Your task to perform on an android device: change keyboard looks Image 0: 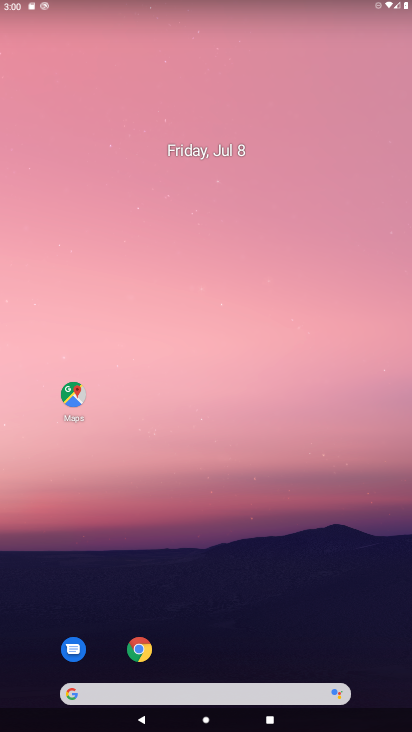
Step 0: drag from (373, 646) to (313, 115)
Your task to perform on an android device: change keyboard looks Image 1: 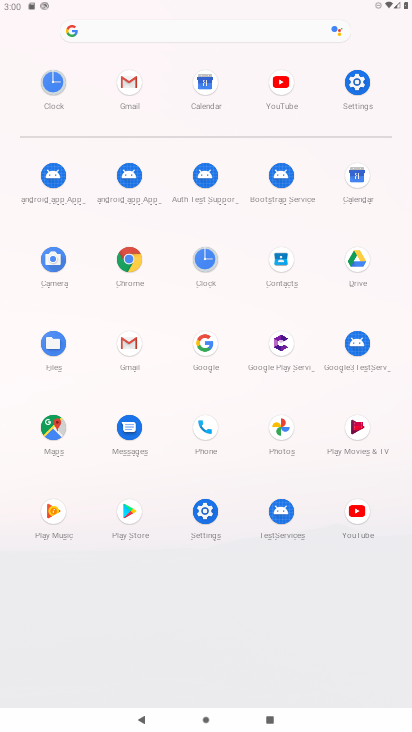
Step 1: click (207, 511)
Your task to perform on an android device: change keyboard looks Image 2: 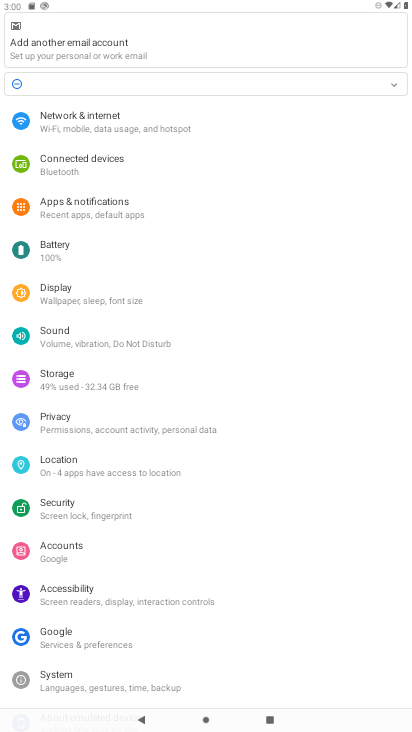
Step 2: drag from (89, 643) to (144, 258)
Your task to perform on an android device: change keyboard looks Image 3: 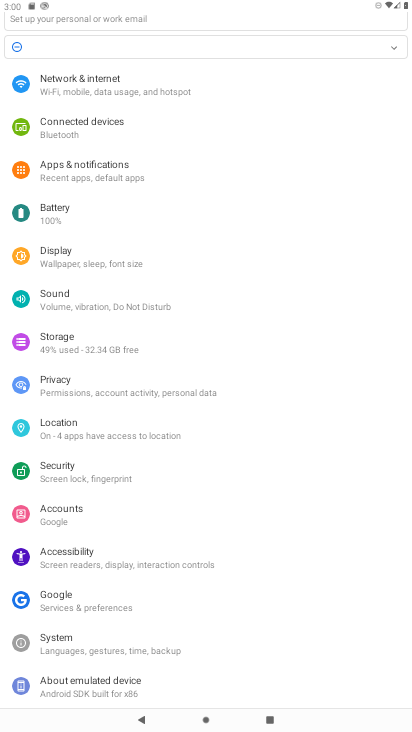
Step 3: click (61, 634)
Your task to perform on an android device: change keyboard looks Image 4: 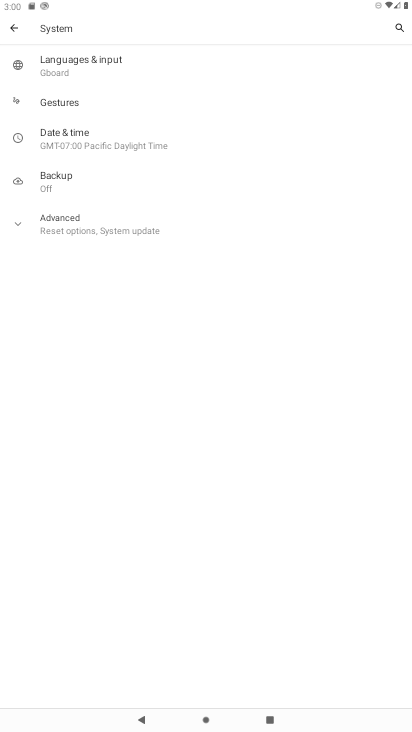
Step 4: click (59, 68)
Your task to perform on an android device: change keyboard looks Image 5: 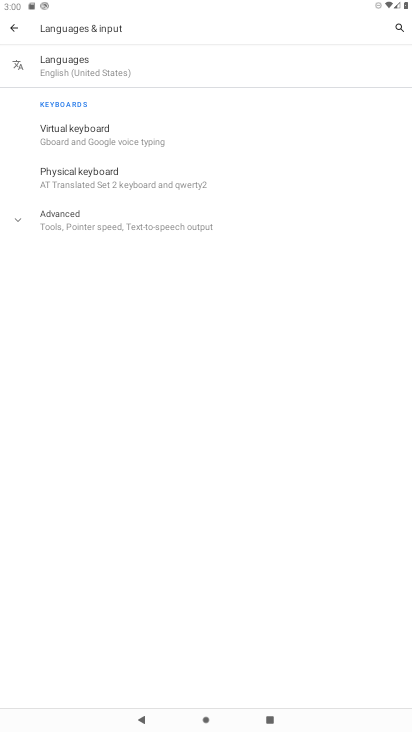
Step 5: click (64, 174)
Your task to perform on an android device: change keyboard looks Image 6: 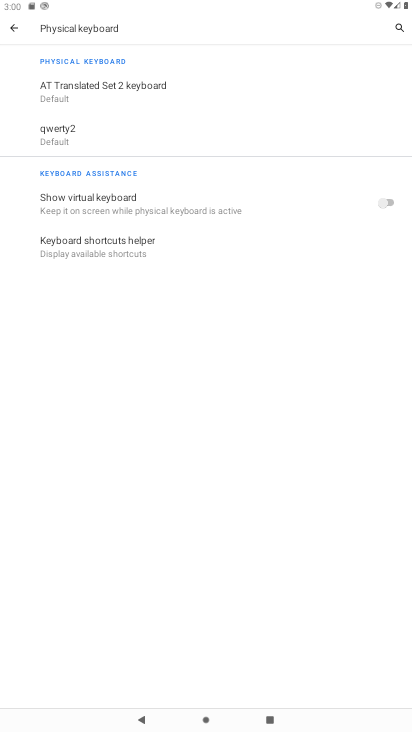
Step 6: click (57, 135)
Your task to perform on an android device: change keyboard looks Image 7: 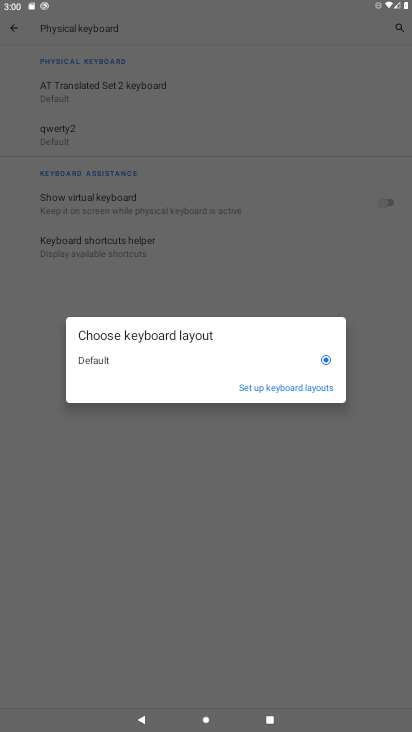
Step 7: click (290, 391)
Your task to perform on an android device: change keyboard looks Image 8: 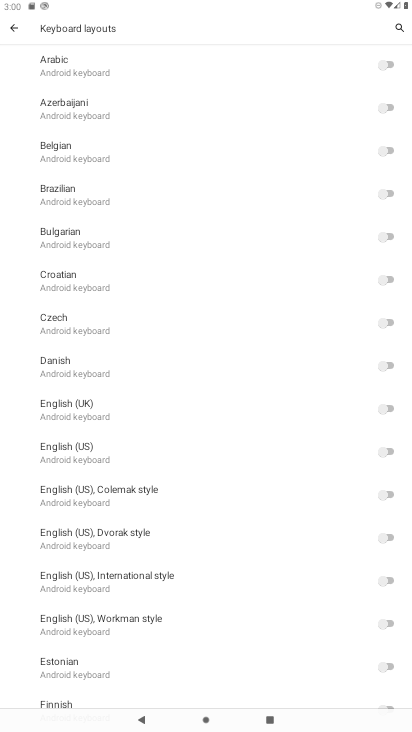
Step 8: click (390, 409)
Your task to perform on an android device: change keyboard looks Image 9: 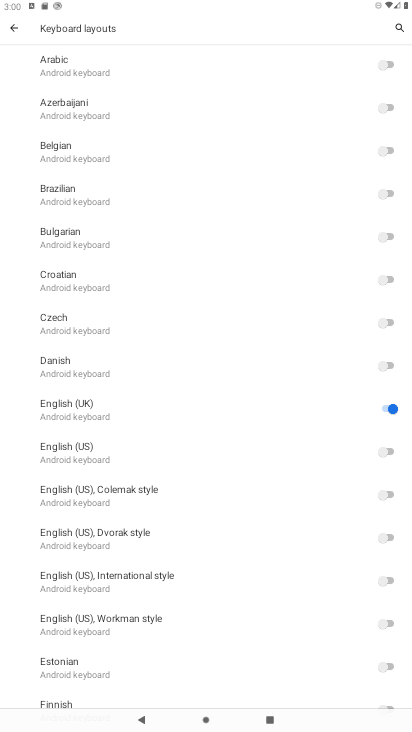
Step 9: task complete